Your task to perform on an android device: Add "energizer triple a" to the cart on newegg.com, then select checkout. Image 0: 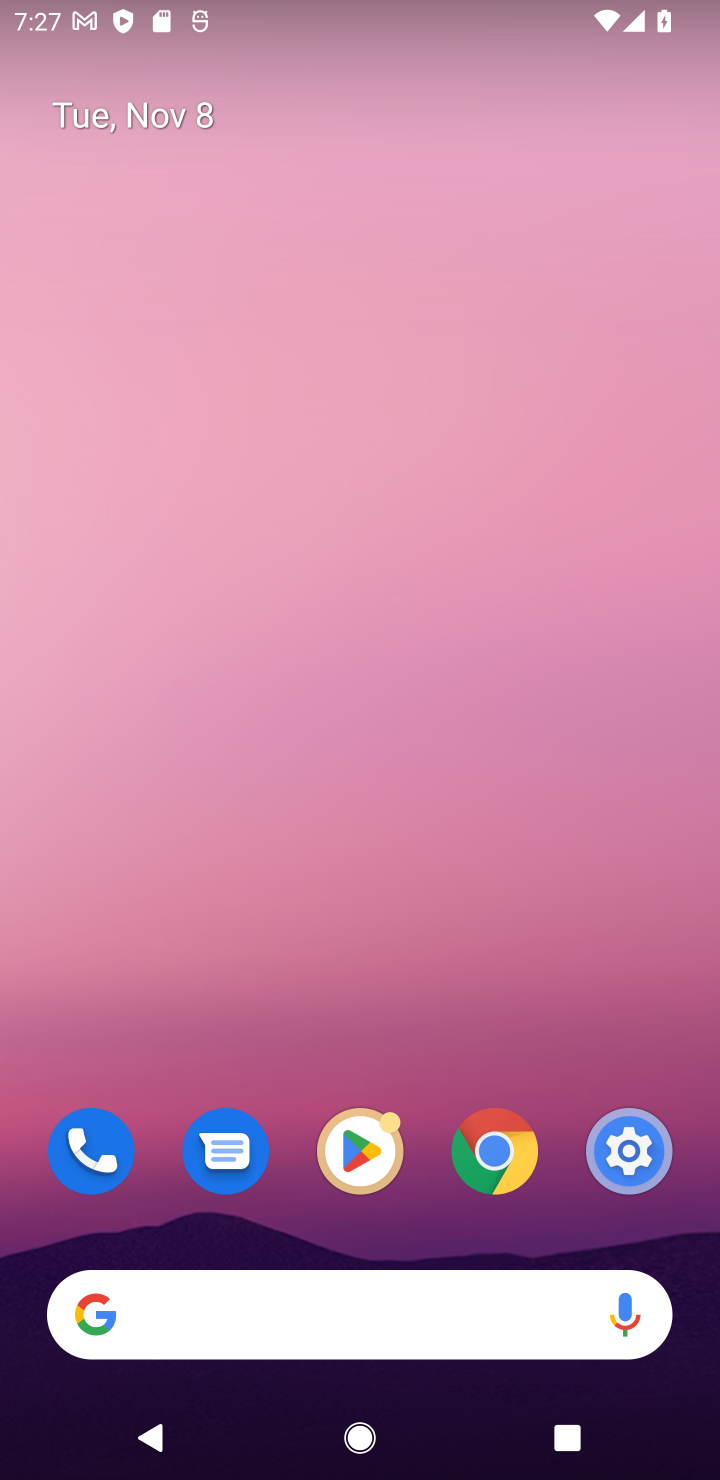
Step 0: click (277, 1364)
Your task to perform on an android device: Add "energizer triple a" to the cart on newegg.com, then select checkout. Image 1: 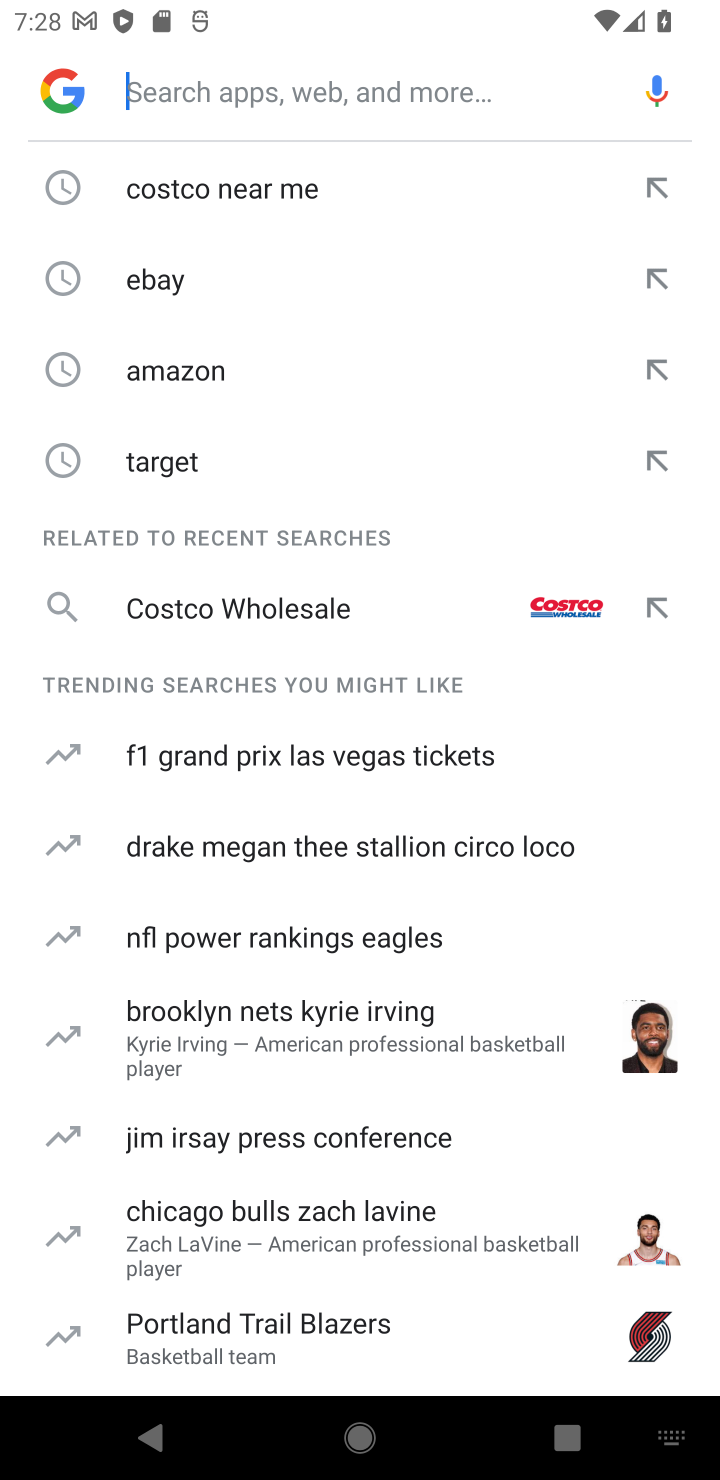
Step 1: type "newegg"
Your task to perform on an android device: Add "energizer triple a" to the cart on newegg.com, then select checkout. Image 2: 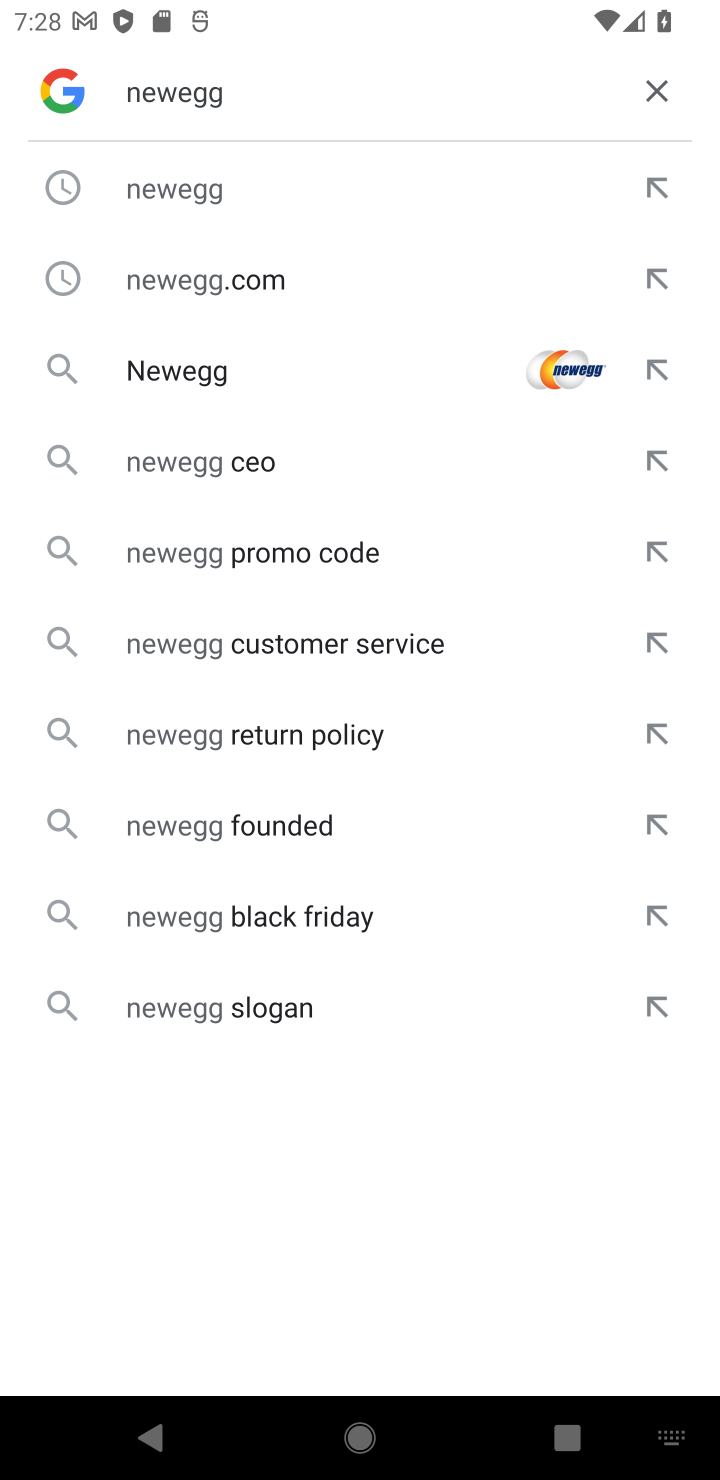
Step 2: click (188, 222)
Your task to perform on an android device: Add "energizer triple a" to the cart on newegg.com, then select checkout. Image 3: 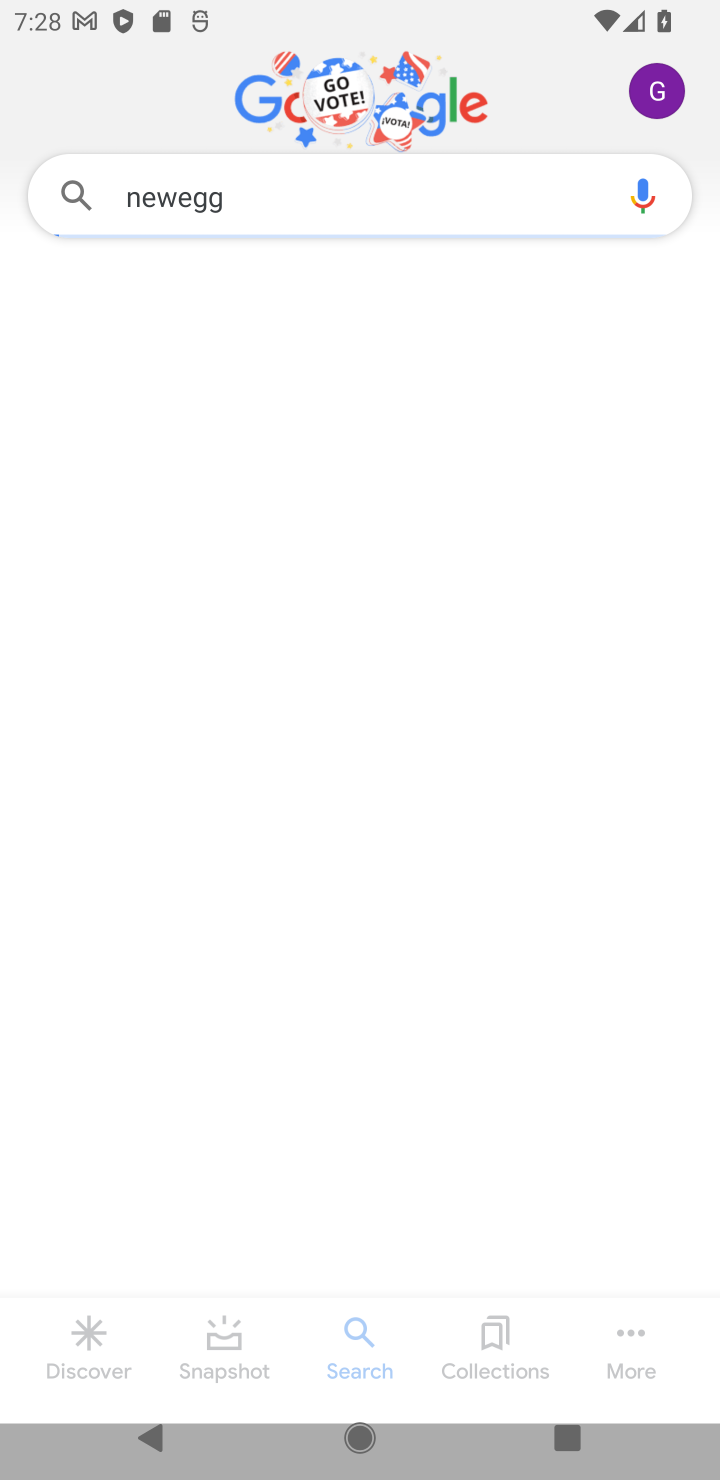
Step 3: task complete